Your task to perform on an android device: open a bookmark in the chrome app Image 0: 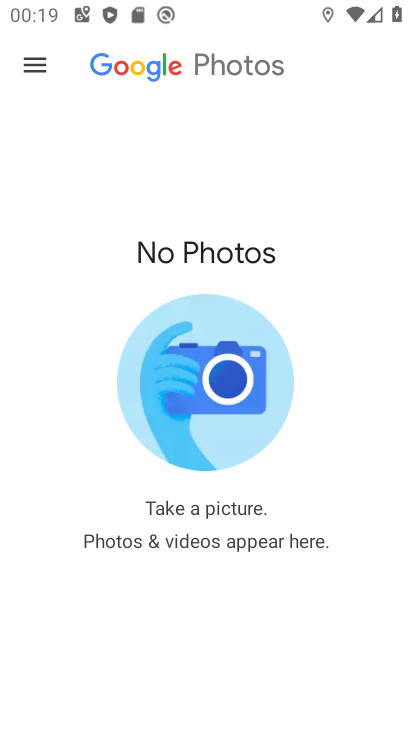
Step 0: press home button
Your task to perform on an android device: open a bookmark in the chrome app Image 1: 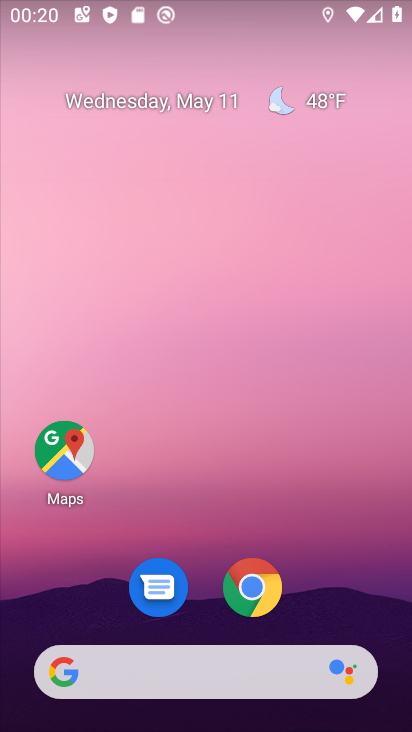
Step 1: click (265, 582)
Your task to perform on an android device: open a bookmark in the chrome app Image 2: 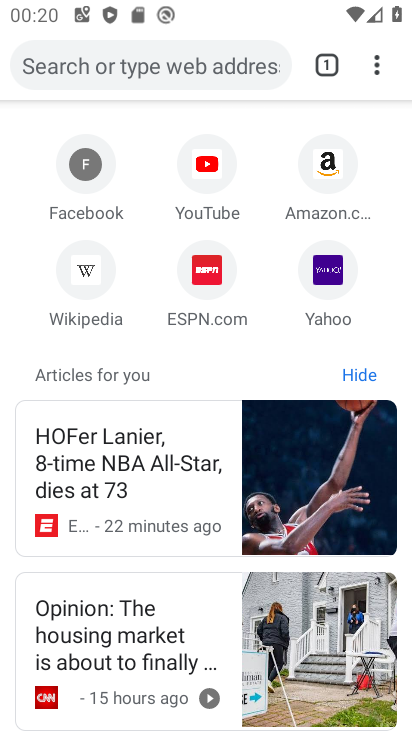
Step 2: click (373, 72)
Your task to perform on an android device: open a bookmark in the chrome app Image 3: 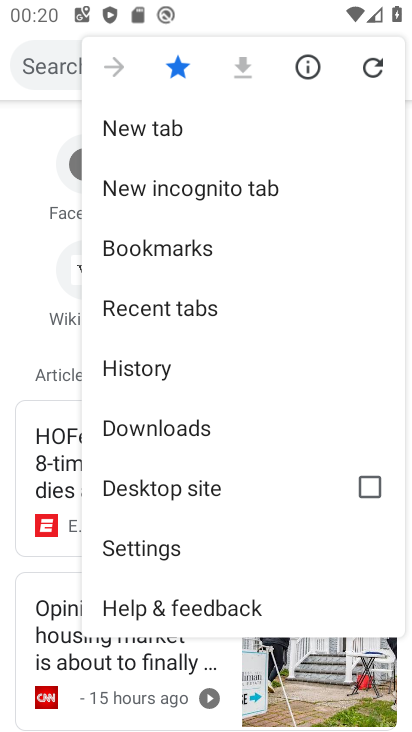
Step 3: click (153, 257)
Your task to perform on an android device: open a bookmark in the chrome app Image 4: 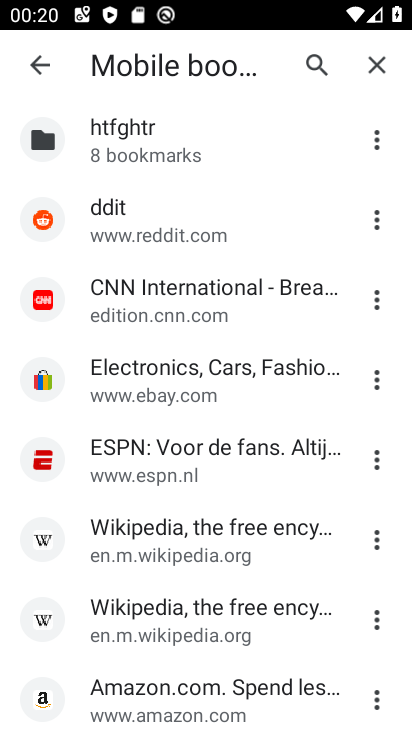
Step 4: drag from (152, 580) to (130, 267)
Your task to perform on an android device: open a bookmark in the chrome app Image 5: 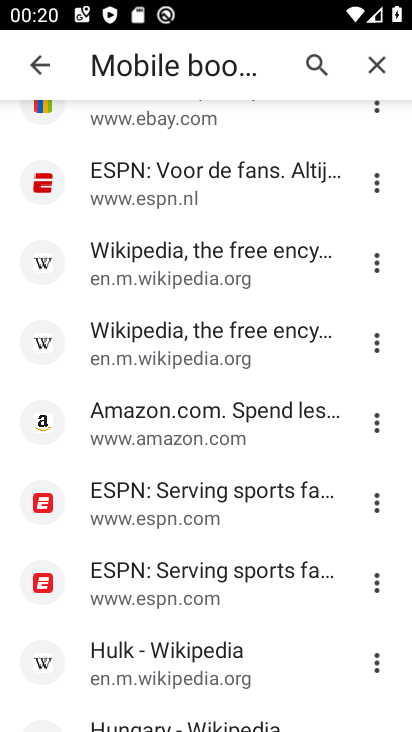
Step 5: click (166, 571)
Your task to perform on an android device: open a bookmark in the chrome app Image 6: 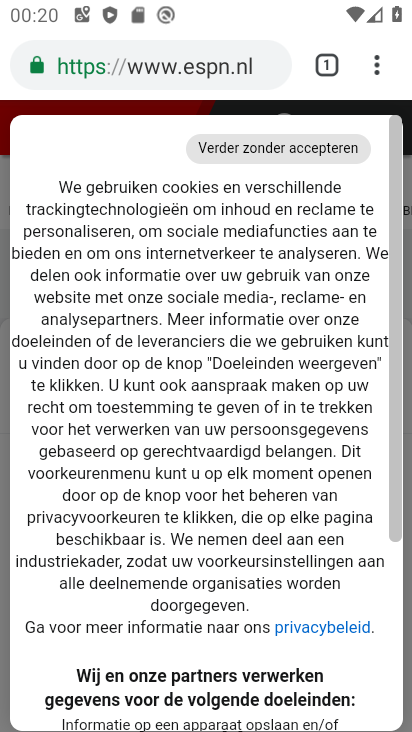
Step 6: task complete